Your task to perform on an android device: toggle sleep mode Image 0: 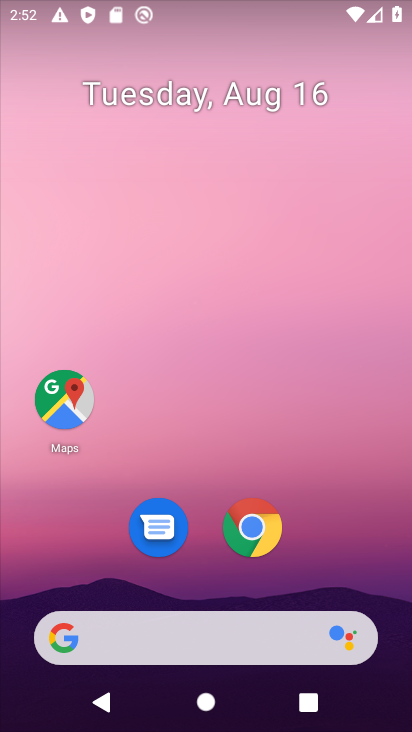
Step 0: drag from (211, 588) to (251, 73)
Your task to perform on an android device: toggle sleep mode Image 1: 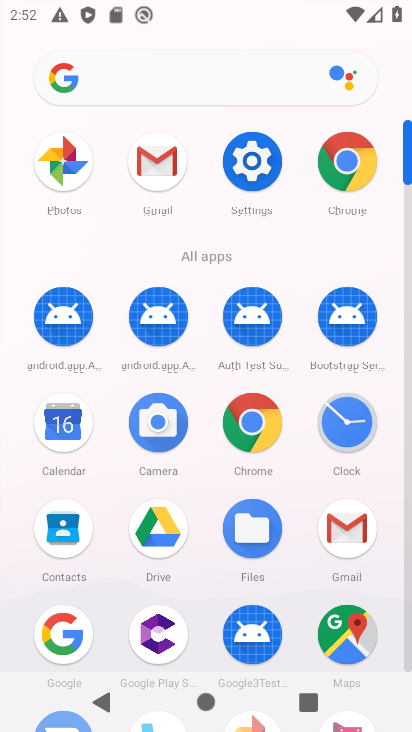
Step 1: click (247, 158)
Your task to perform on an android device: toggle sleep mode Image 2: 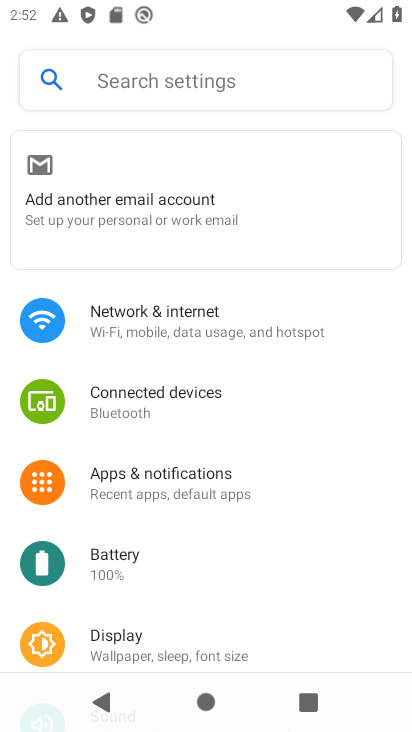
Step 2: click (151, 640)
Your task to perform on an android device: toggle sleep mode Image 3: 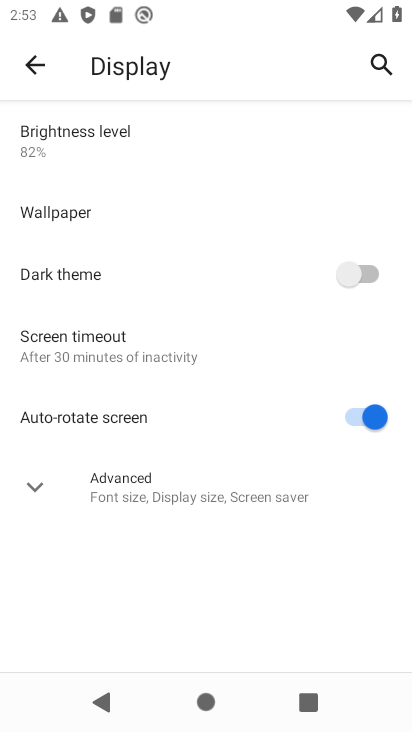
Step 3: click (32, 490)
Your task to perform on an android device: toggle sleep mode Image 4: 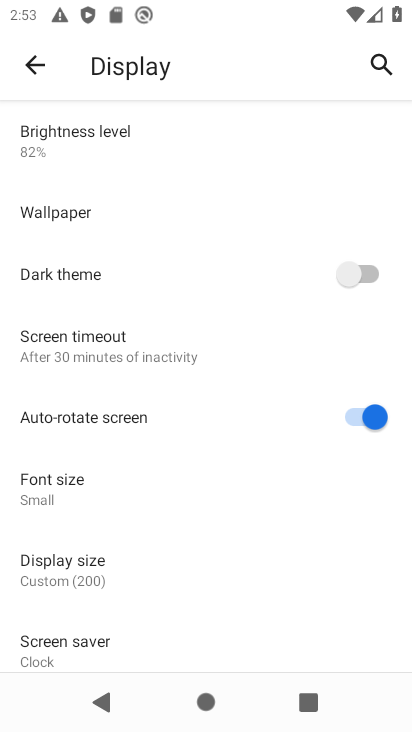
Step 4: task complete